Your task to perform on an android device: Open Google Maps Image 0: 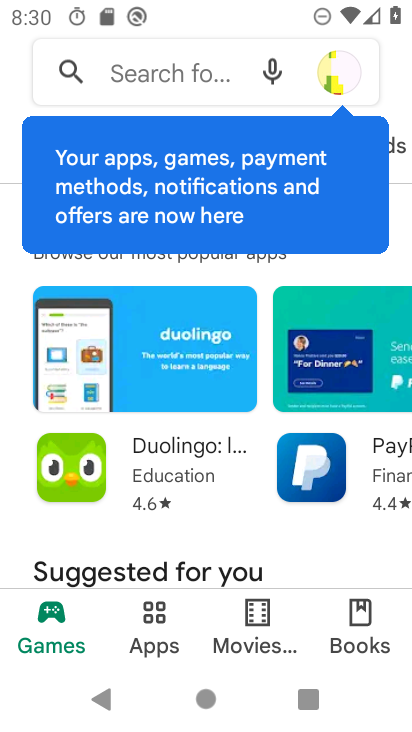
Step 0: press home button
Your task to perform on an android device: Open Google Maps Image 1: 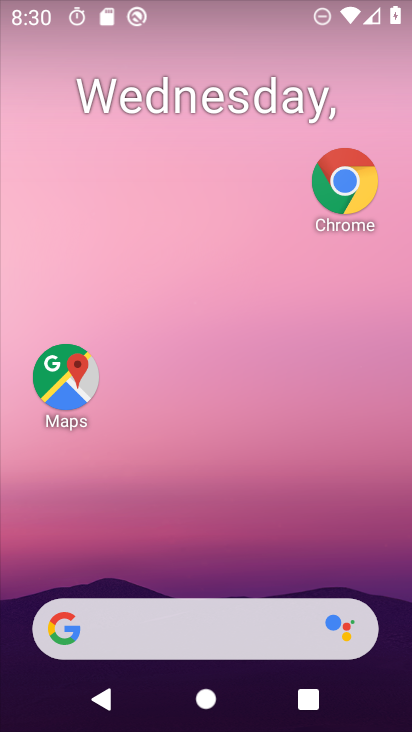
Step 1: drag from (226, 673) to (254, 213)
Your task to perform on an android device: Open Google Maps Image 2: 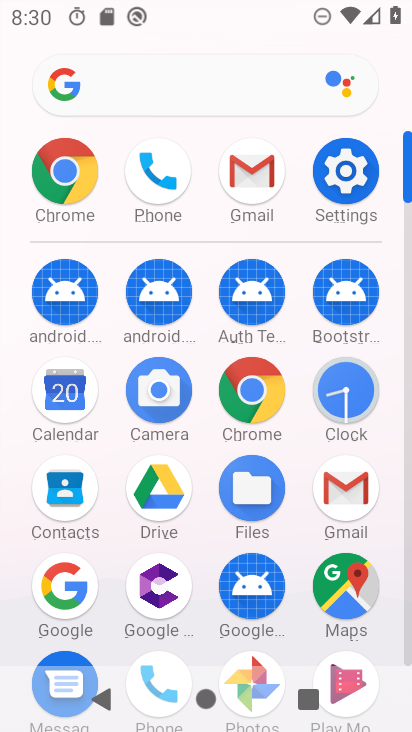
Step 2: click (336, 566)
Your task to perform on an android device: Open Google Maps Image 3: 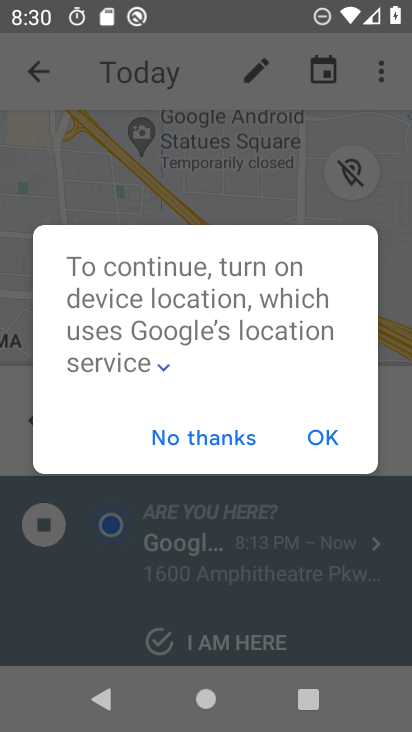
Step 3: click (231, 432)
Your task to perform on an android device: Open Google Maps Image 4: 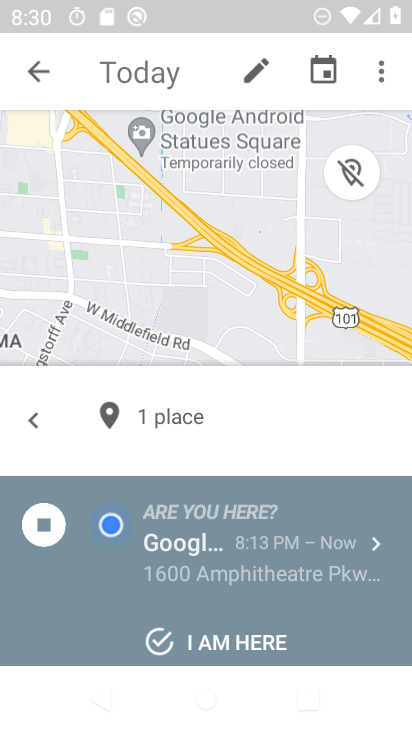
Step 4: task complete